Your task to perform on an android device: Find coffee shops on Maps Image 0: 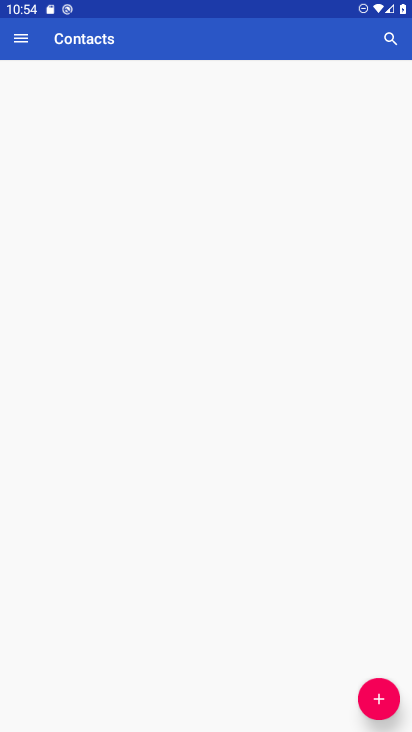
Step 0: click (172, 695)
Your task to perform on an android device: Find coffee shops on Maps Image 1: 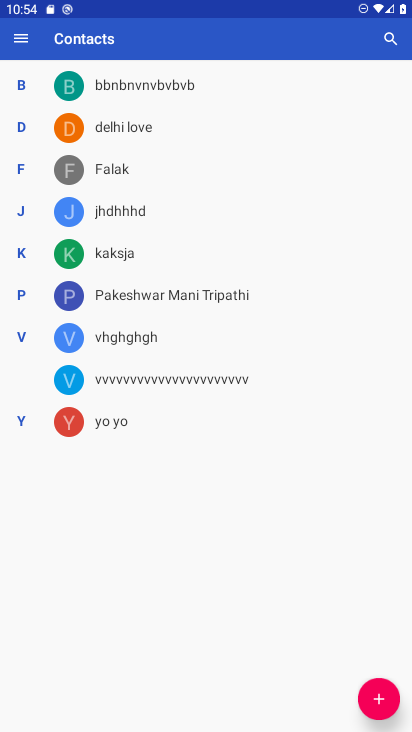
Step 1: press home button
Your task to perform on an android device: Find coffee shops on Maps Image 2: 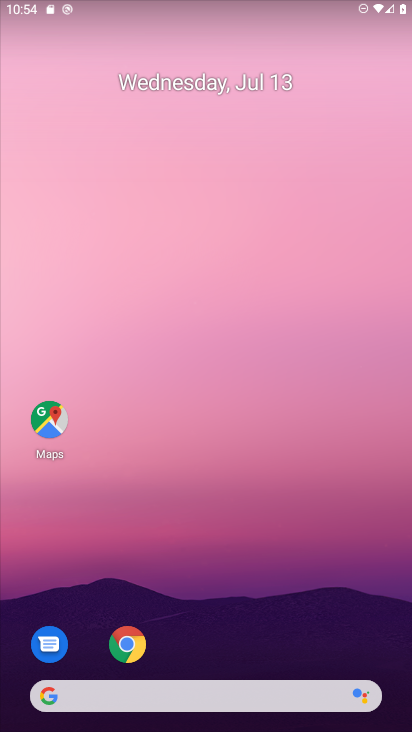
Step 2: click (212, 561)
Your task to perform on an android device: Find coffee shops on Maps Image 3: 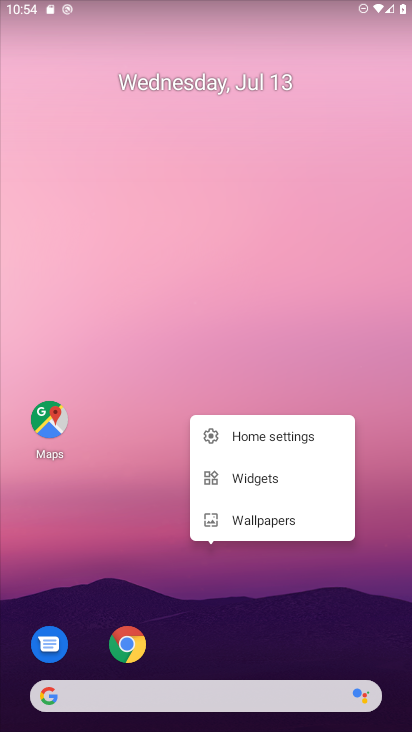
Step 3: click (45, 418)
Your task to perform on an android device: Find coffee shops on Maps Image 4: 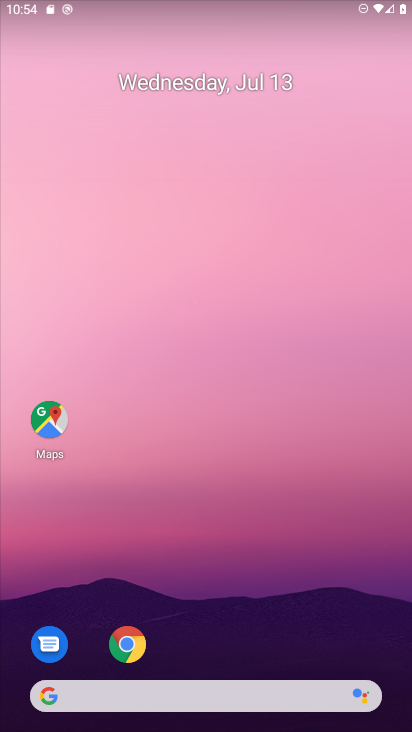
Step 4: click (45, 418)
Your task to perform on an android device: Find coffee shops on Maps Image 5: 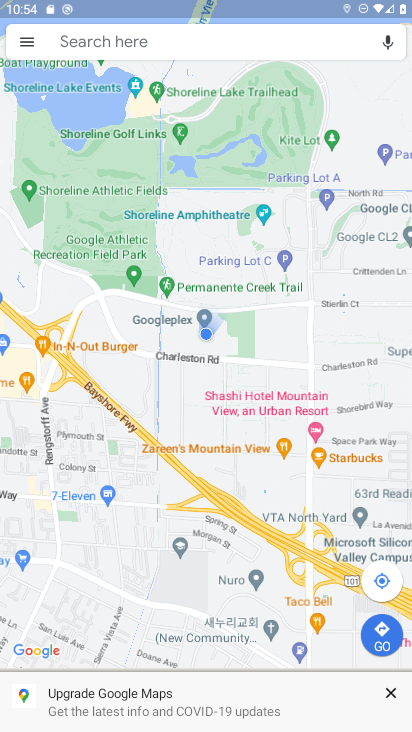
Step 5: click (121, 33)
Your task to perform on an android device: Find coffee shops on Maps Image 6: 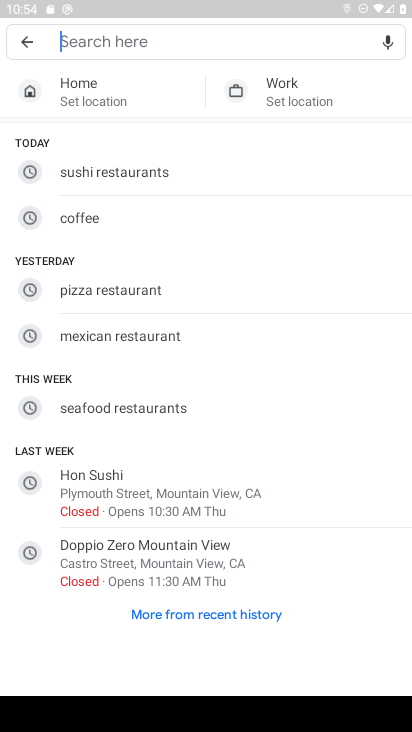
Step 6: click (76, 217)
Your task to perform on an android device: Find coffee shops on Maps Image 7: 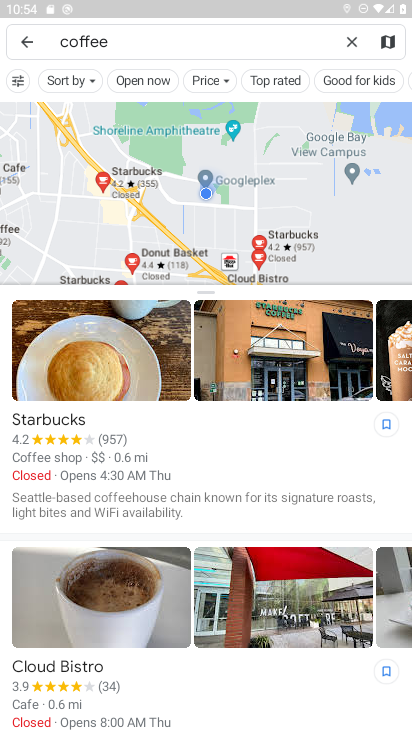
Step 7: task complete